Your task to perform on an android device: change the clock display to analog Image 0: 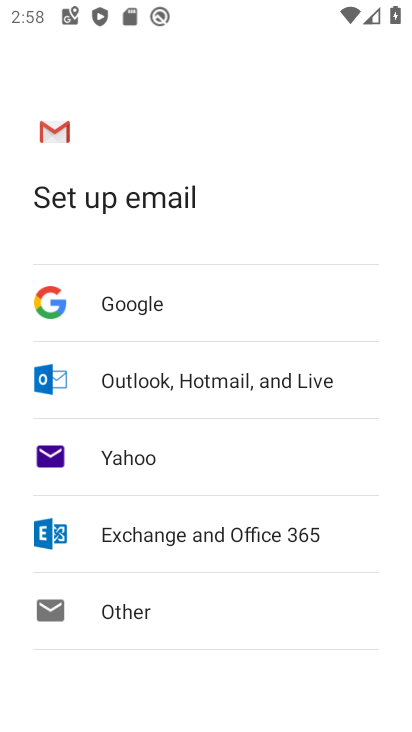
Step 0: press home button
Your task to perform on an android device: change the clock display to analog Image 1: 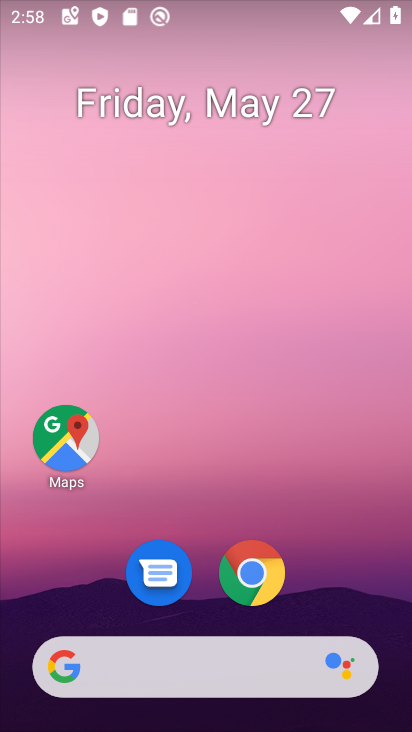
Step 1: drag from (320, 544) to (276, 11)
Your task to perform on an android device: change the clock display to analog Image 2: 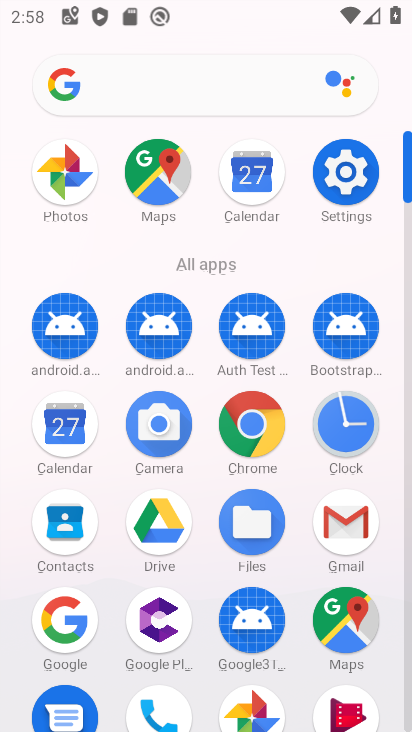
Step 2: click (353, 427)
Your task to perform on an android device: change the clock display to analog Image 3: 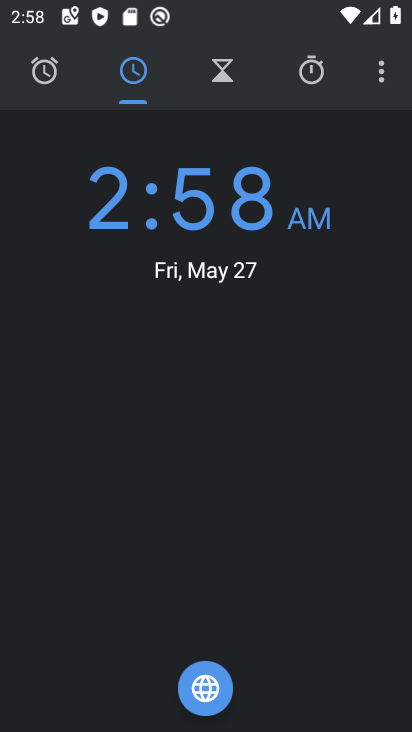
Step 3: click (380, 70)
Your task to perform on an android device: change the clock display to analog Image 4: 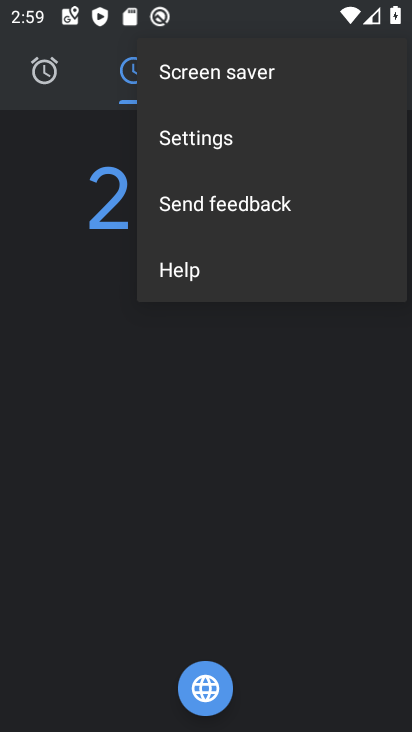
Step 4: click (262, 138)
Your task to perform on an android device: change the clock display to analog Image 5: 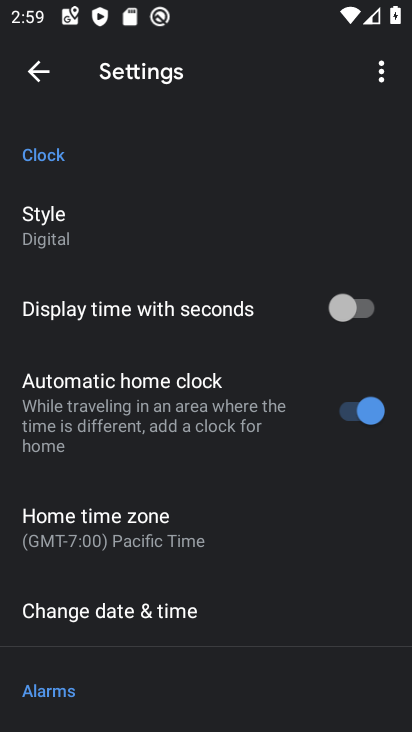
Step 5: click (114, 224)
Your task to perform on an android device: change the clock display to analog Image 6: 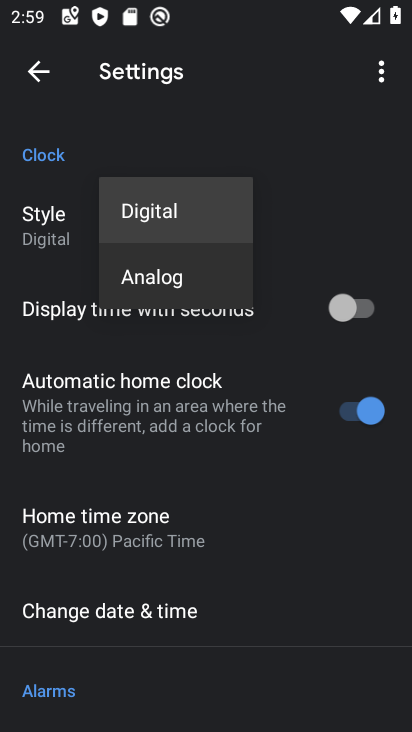
Step 6: click (144, 272)
Your task to perform on an android device: change the clock display to analog Image 7: 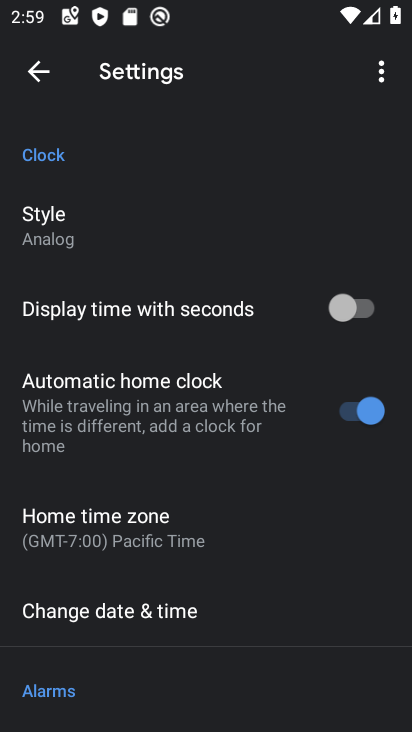
Step 7: click (27, 61)
Your task to perform on an android device: change the clock display to analog Image 8: 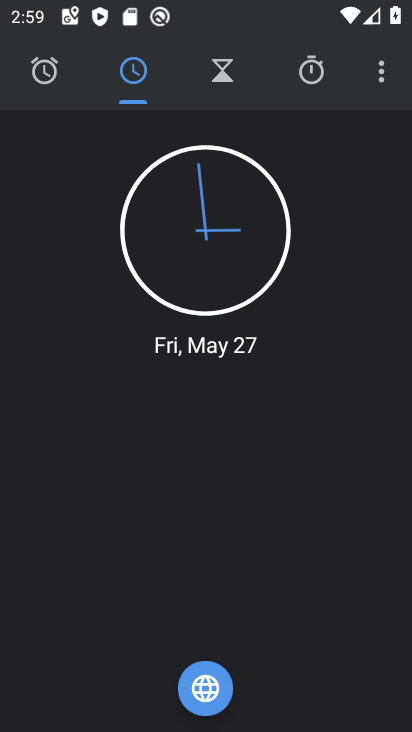
Step 8: task complete